Your task to perform on an android device: Open calendar and show me the fourth week of next month Image 0: 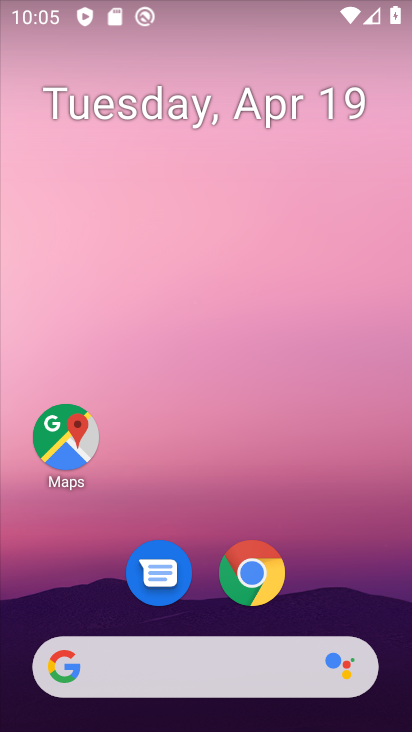
Step 0: drag from (370, 563) to (376, 123)
Your task to perform on an android device: Open calendar and show me the fourth week of next month Image 1: 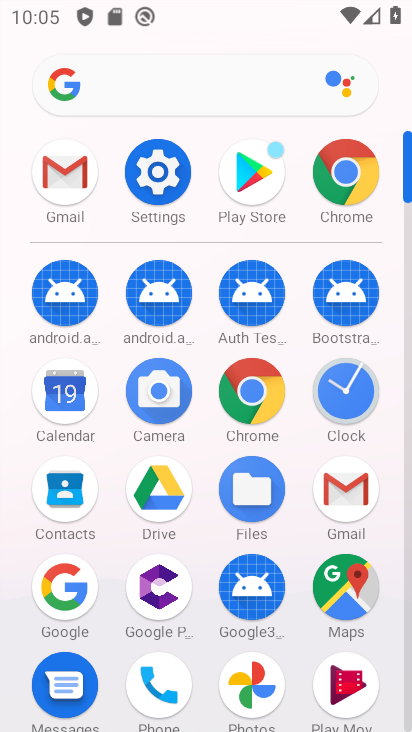
Step 1: click (50, 397)
Your task to perform on an android device: Open calendar and show me the fourth week of next month Image 2: 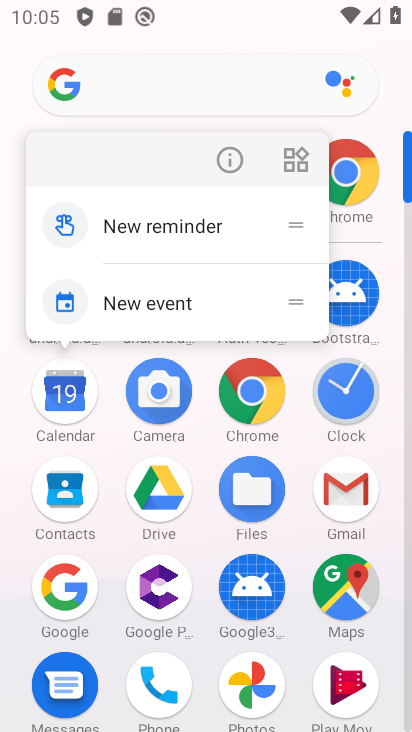
Step 2: click (54, 403)
Your task to perform on an android device: Open calendar and show me the fourth week of next month Image 3: 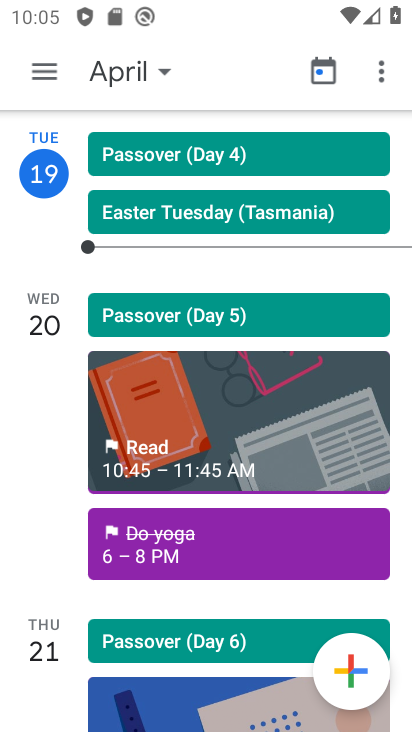
Step 3: click (151, 69)
Your task to perform on an android device: Open calendar and show me the fourth week of next month Image 4: 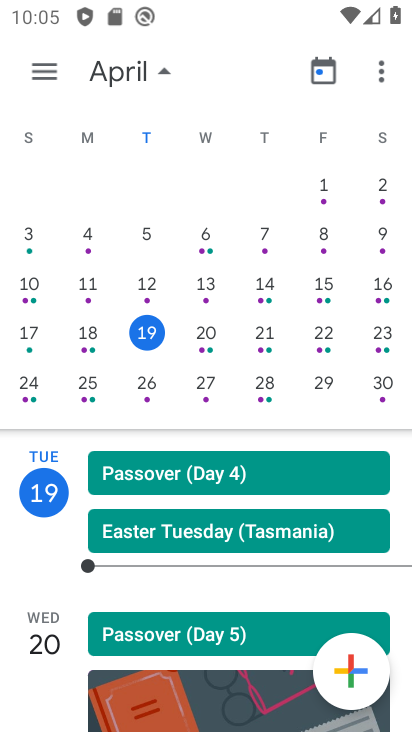
Step 4: drag from (398, 313) to (8, 305)
Your task to perform on an android device: Open calendar and show me the fourth week of next month Image 5: 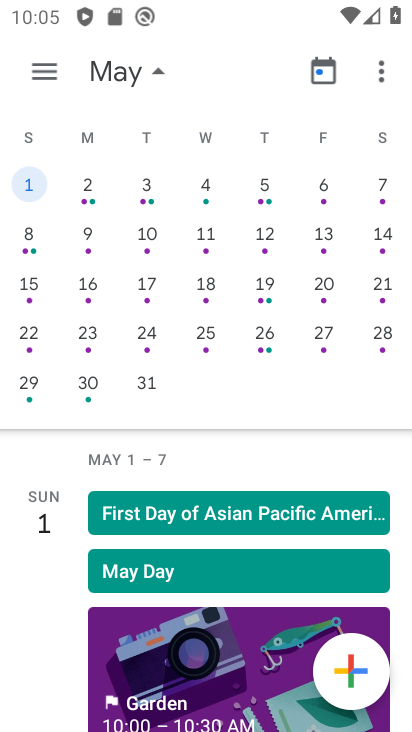
Step 5: click (147, 332)
Your task to perform on an android device: Open calendar and show me the fourth week of next month Image 6: 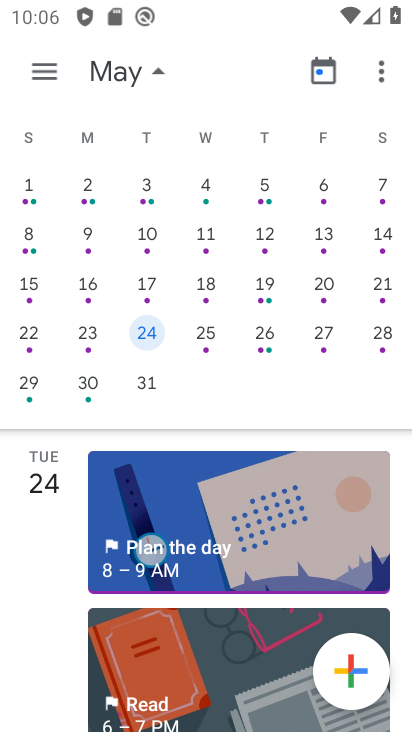
Step 6: task complete